Your task to perform on an android device: Check the news Image 0: 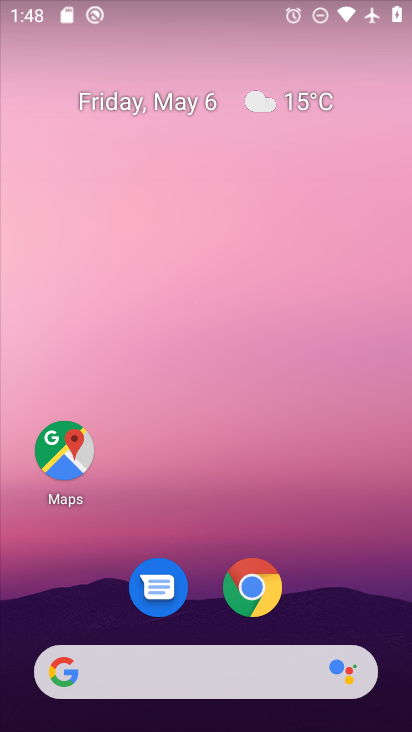
Step 0: drag from (337, 532) to (236, 66)
Your task to perform on an android device: Check the news Image 1: 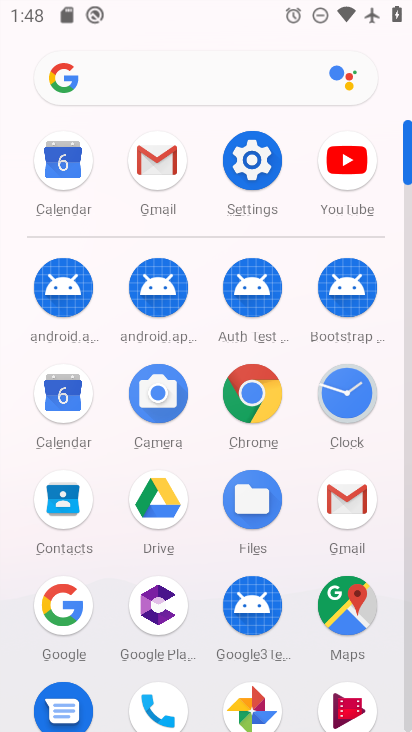
Step 1: click (61, 607)
Your task to perform on an android device: Check the news Image 2: 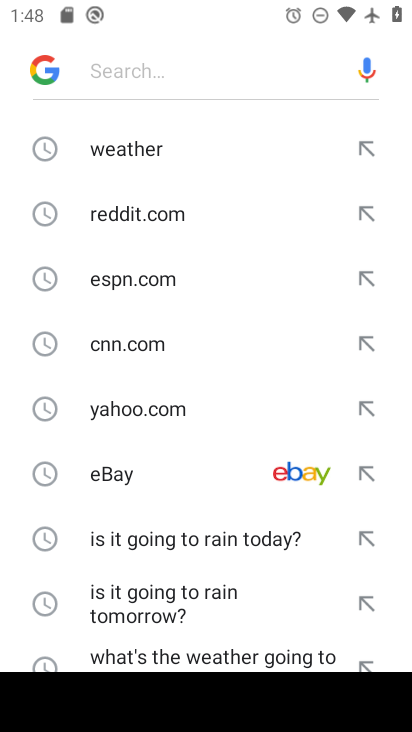
Step 2: click (194, 74)
Your task to perform on an android device: Check the news Image 3: 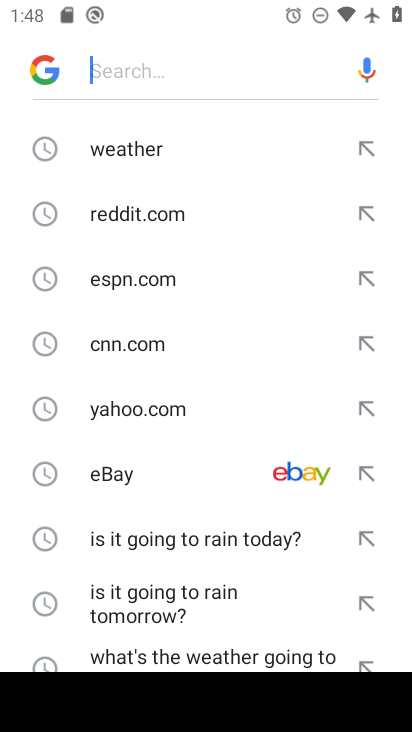
Step 3: type "news"
Your task to perform on an android device: Check the news Image 4: 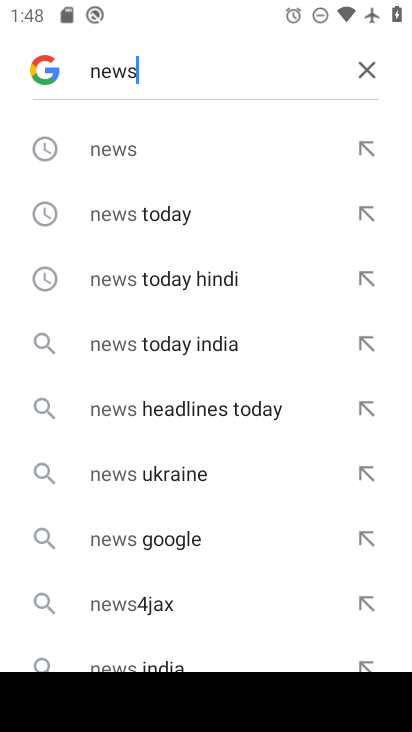
Step 4: click (119, 144)
Your task to perform on an android device: Check the news Image 5: 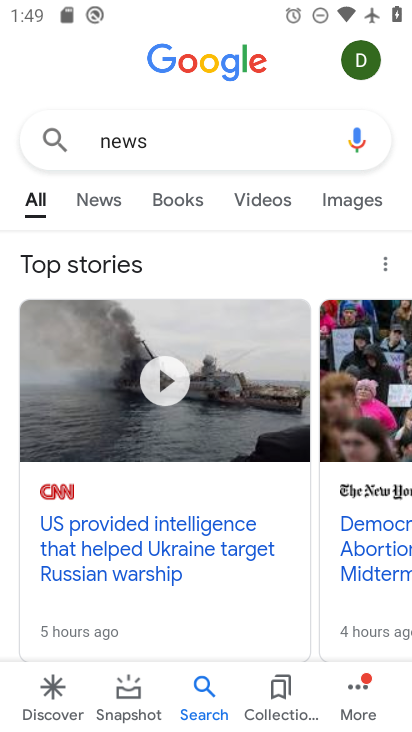
Step 5: click (87, 202)
Your task to perform on an android device: Check the news Image 6: 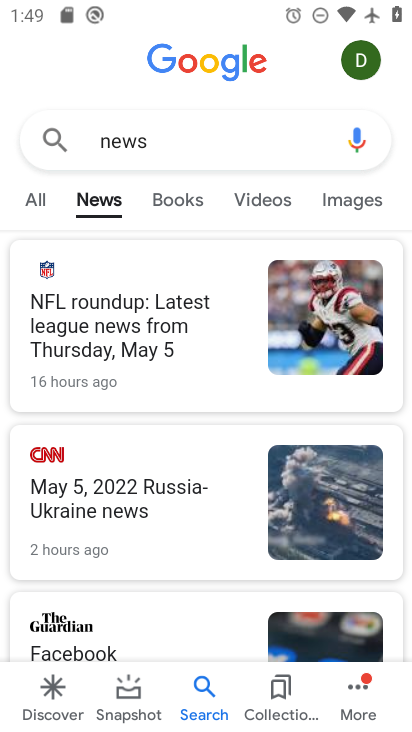
Step 6: task complete